Your task to perform on an android device: Check the weather Image 0: 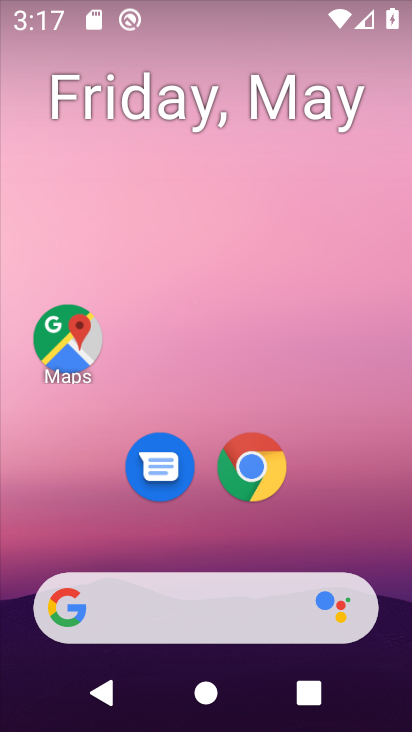
Step 0: drag from (271, 528) to (210, 77)
Your task to perform on an android device: Check the weather Image 1: 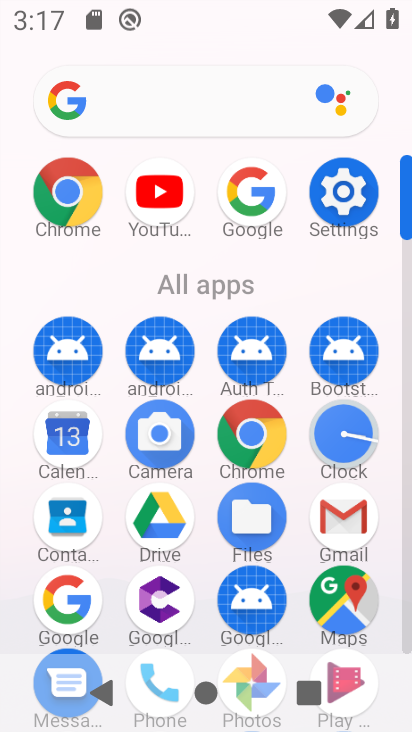
Step 1: click (75, 598)
Your task to perform on an android device: Check the weather Image 2: 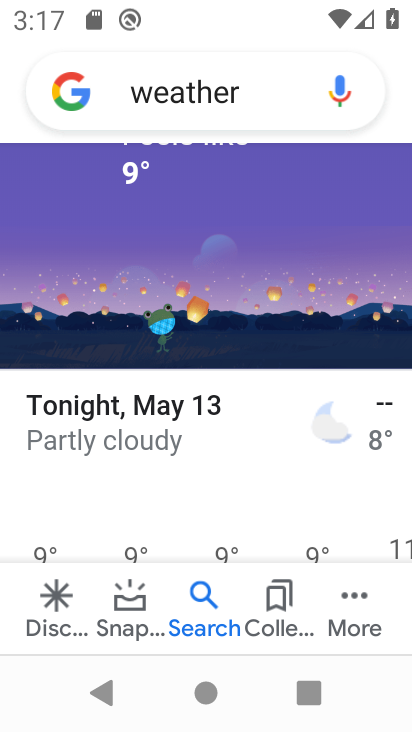
Step 2: task complete